Your task to perform on an android device: change the clock display to digital Image 0: 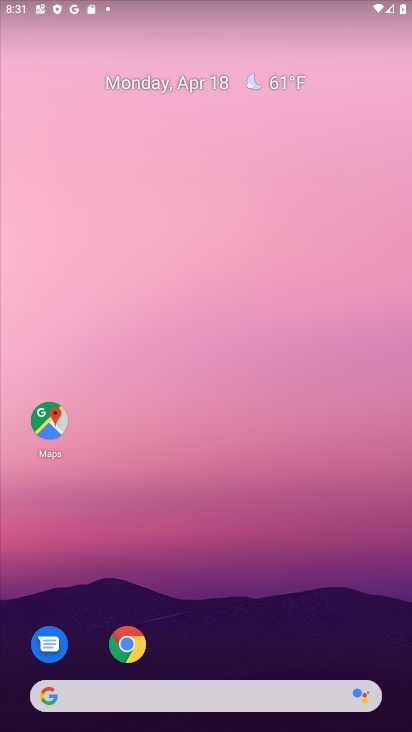
Step 0: drag from (189, 655) to (196, 158)
Your task to perform on an android device: change the clock display to digital Image 1: 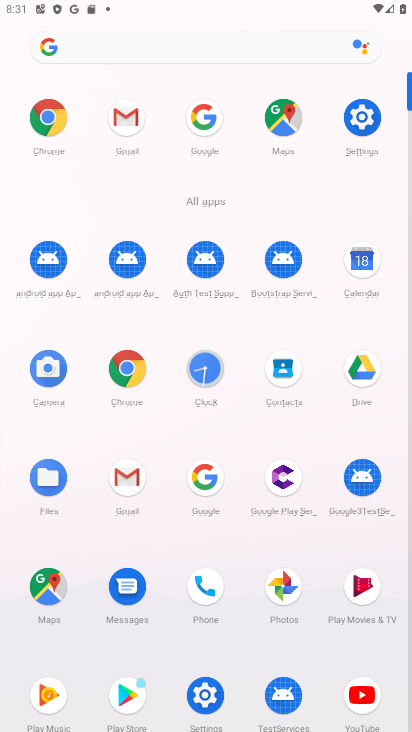
Step 1: click (215, 380)
Your task to perform on an android device: change the clock display to digital Image 2: 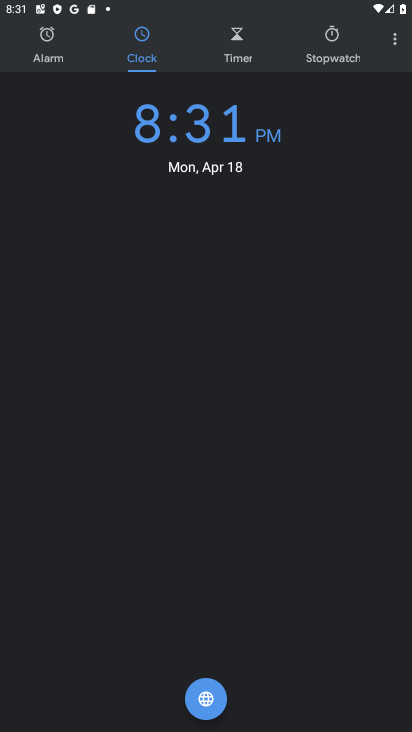
Step 2: click (397, 45)
Your task to perform on an android device: change the clock display to digital Image 3: 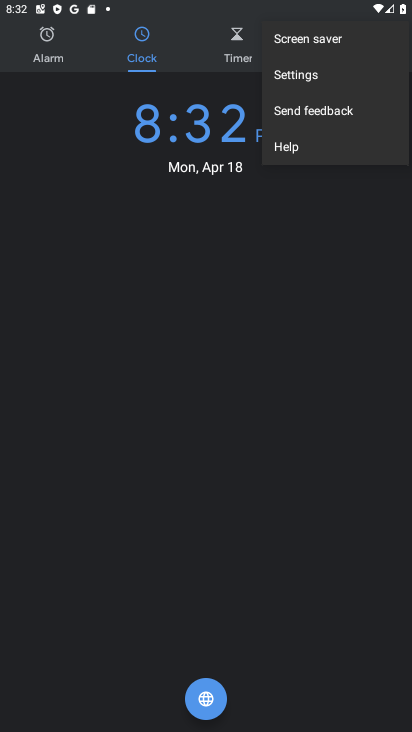
Step 3: click (284, 77)
Your task to perform on an android device: change the clock display to digital Image 4: 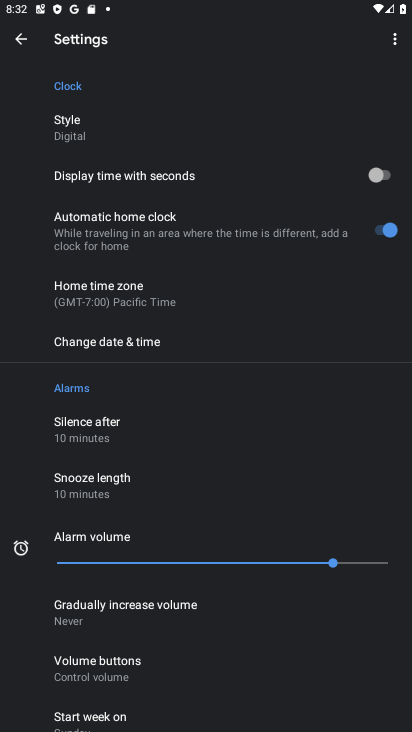
Step 4: click (197, 118)
Your task to perform on an android device: change the clock display to digital Image 5: 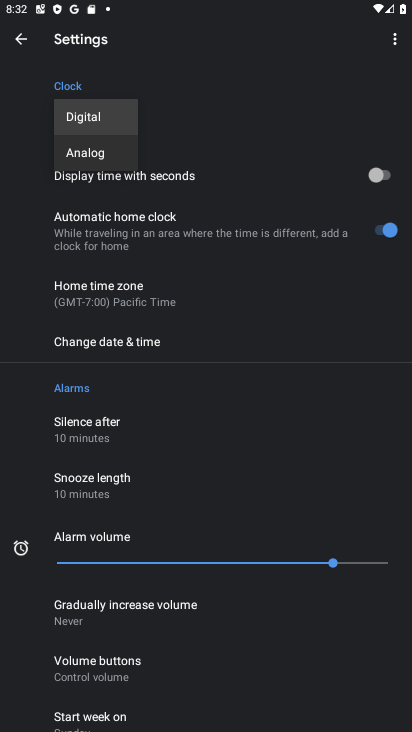
Step 5: click (94, 121)
Your task to perform on an android device: change the clock display to digital Image 6: 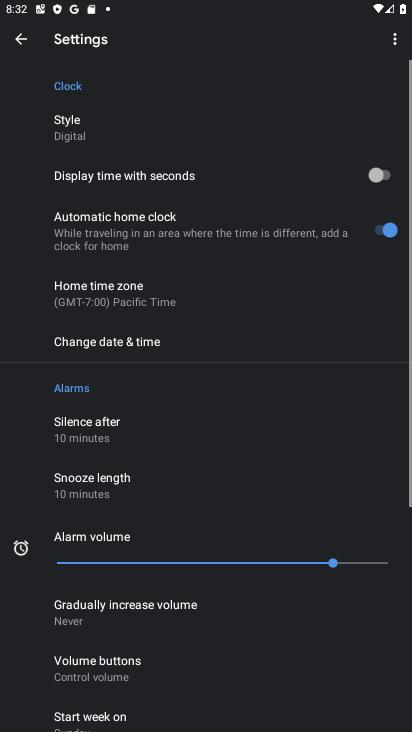
Step 6: task complete